Your task to perform on an android device: turn off smart reply in the gmail app Image 0: 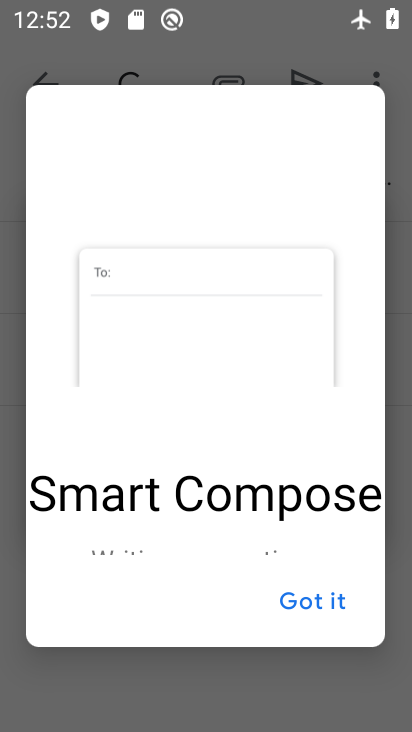
Step 0: press home button
Your task to perform on an android device: turn off smart reply in the gmail app Image 1: 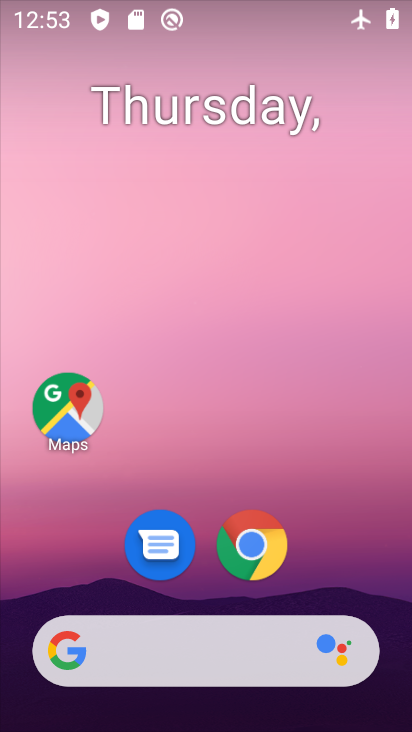
Step 1: drag from (231, 545) to (242, 314)
Your task to perform on an android device: turn off smart reply in the gmail app Image 2: 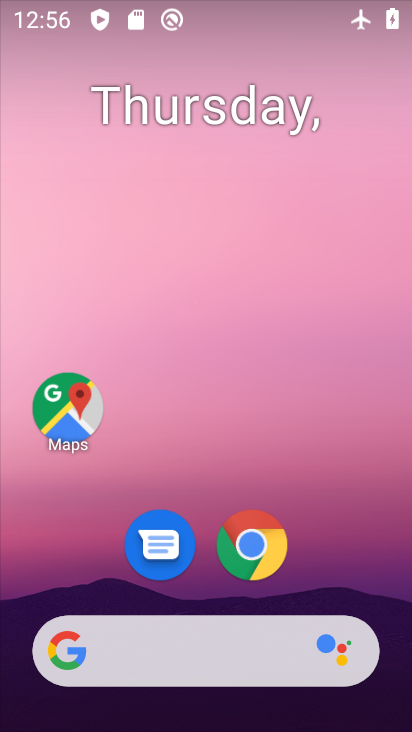
Step 2: drag from (230, 714) to (224, 0)
Your task to perform on an android device: turn off smart reply in the gmail app Image 3: 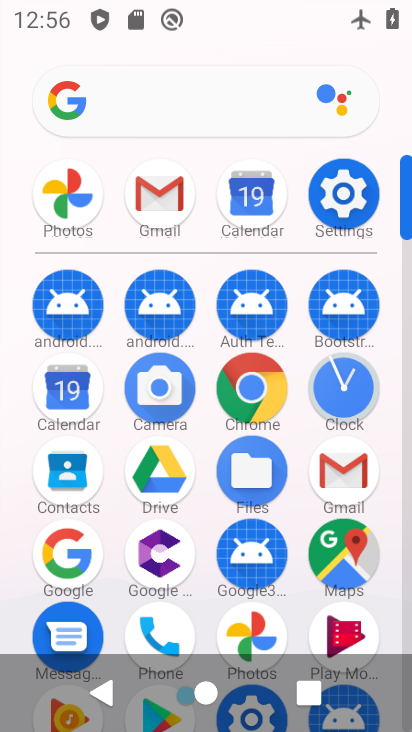
Step 3: click (171, 210)
Your task to perform on an android device: turn off smart reply in the gmail app Image 4: 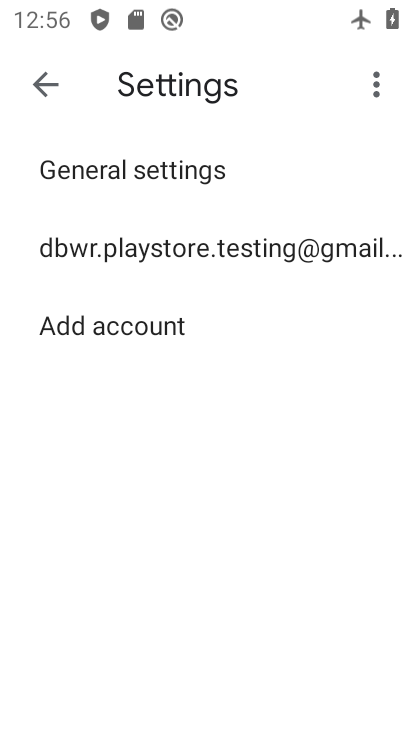
Step 4: click (137, 255)
Your task to perform on an android device: turn off smart reply in the gmail app Image 5: 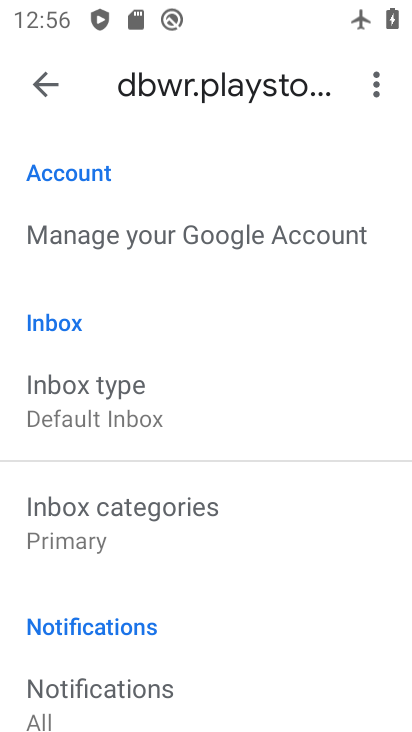
Step 5: drag from (261, 648) to (224, 142)
Your task to perform on an android device: turn off smart reply in the gmail app Image 6: 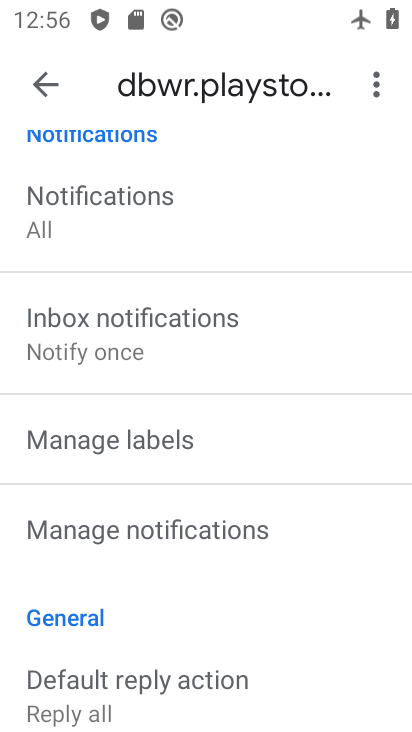
Step 6: drag from (301, 622) to (264, 80)
Your task to perform on an android device: turn off smart reply in the gmail app Image 7: 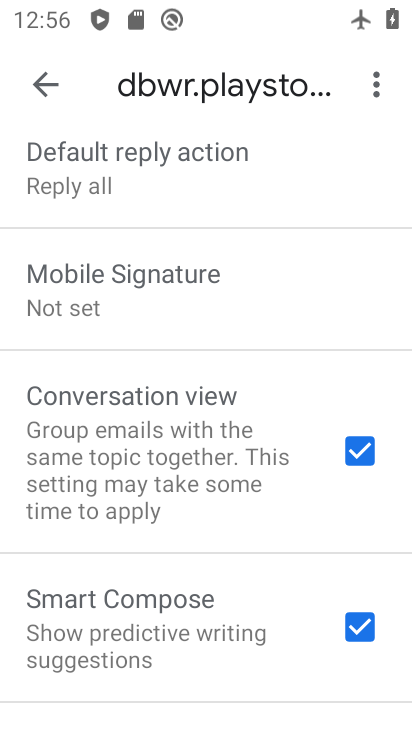
Step 7: drag from (276, 677) to (194, 318)
Your task to perform on an android device: turn off smart reply in the gmail app Image 8: 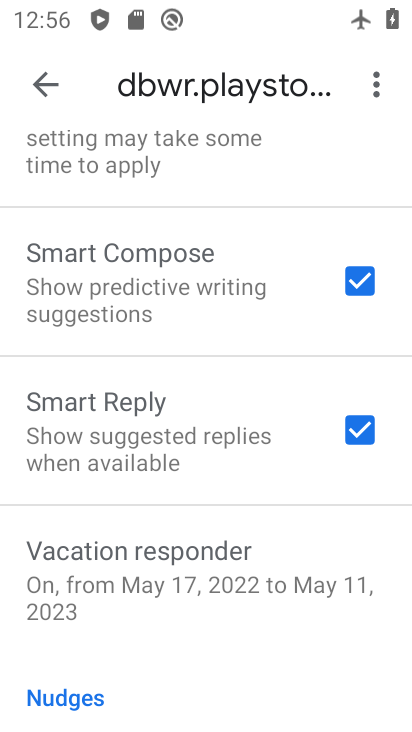
Step 8: click (363, 438)
Your task to perform on an android device: turn off smart reply in the gmail app Image 9: 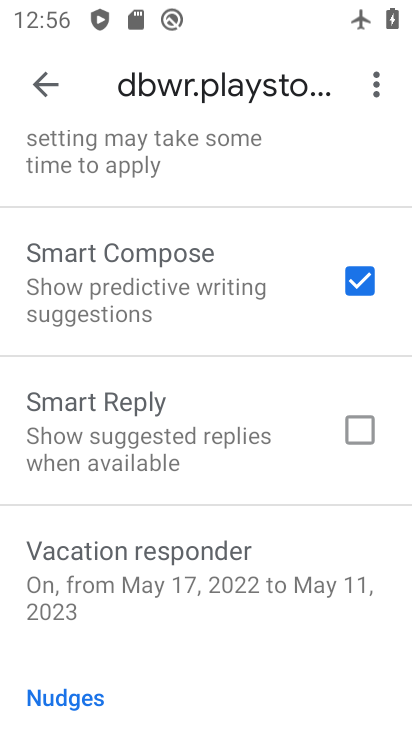
Step 9: task complete